Your task to perform on an android device: Open Google Maps Image 0: 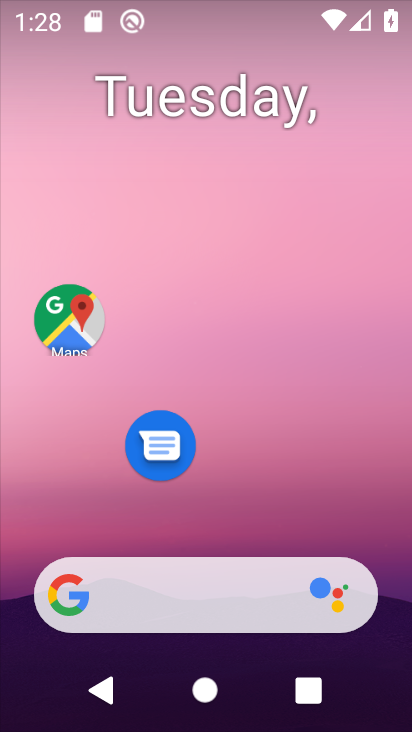
Step 0: click (62, 332)
Your task to perform on an android device: Open Google Maps Image 1: 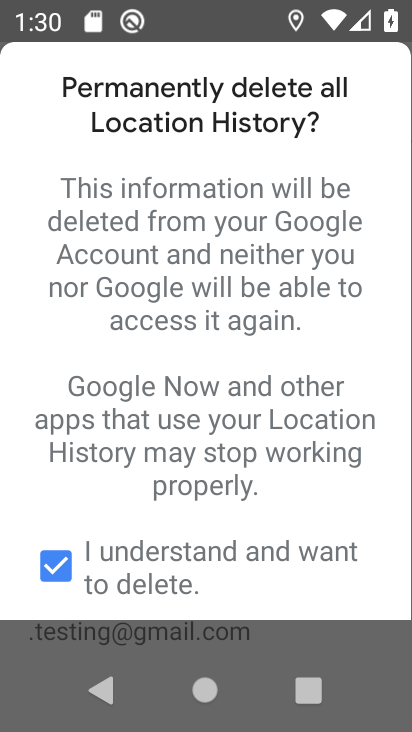
Step 1: click (378, 369)
Your task to perform on an android device: Open Google Maps Image 2: 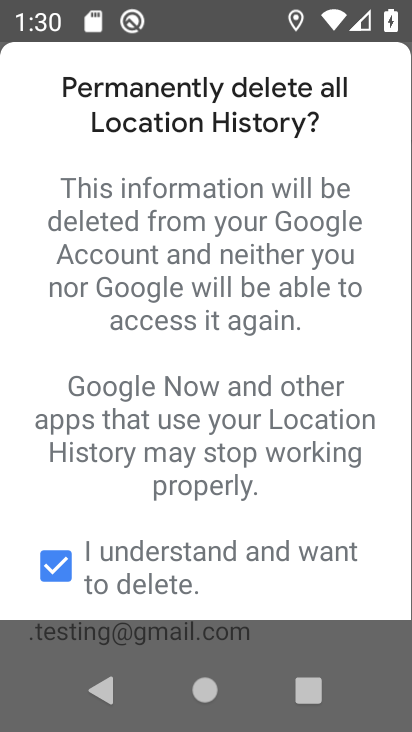
Step 2: click (133, 351)
Your task to perform on an android device: Open Google Maps Image 3: 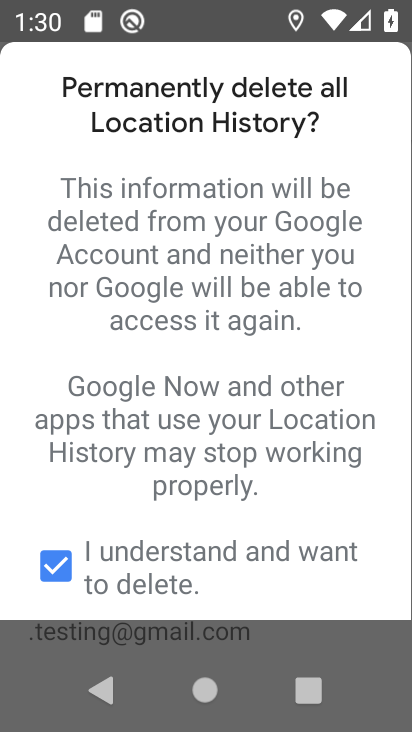
Step 3: task complete